Your task to perform on an android device: turn on translation in the chrome app Image 0: 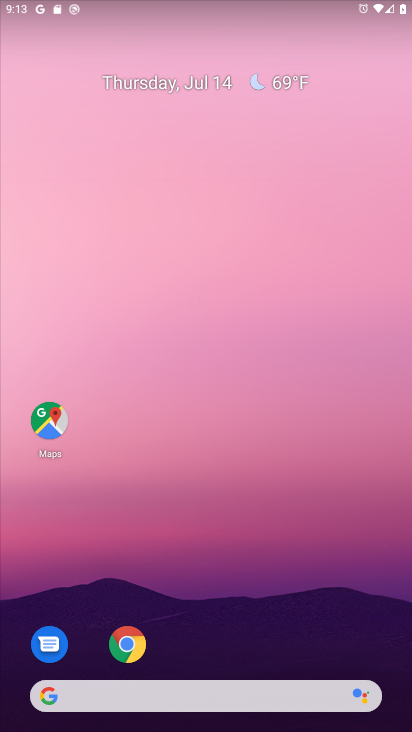
Step 0: click (119, 643)
Your task to perform on an android device: turn on translation in the chrome app Image 1: 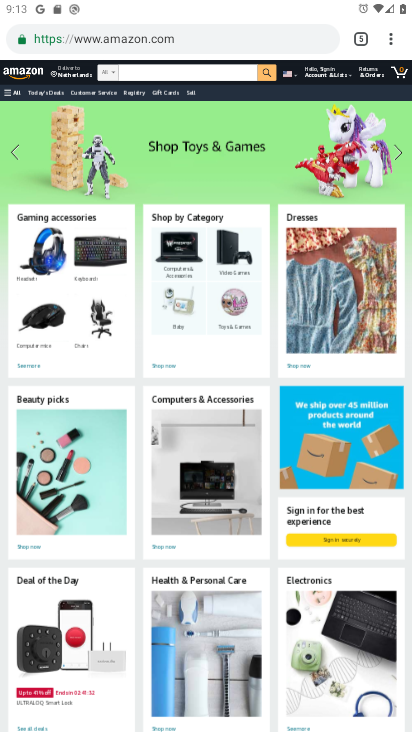
Step 1: click (398, 44)
Your task to perform on an android device: turn on translation in the chrome app Image 2: 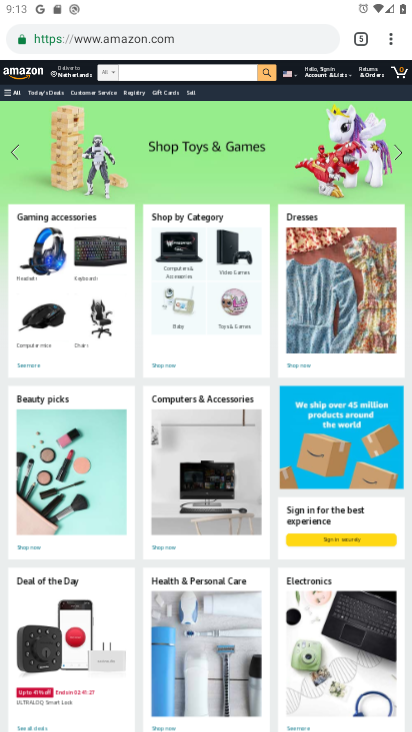
Step 2: click (395, 43)
Your task to perform on an android device: turn on translation in the chrome app Image 3: 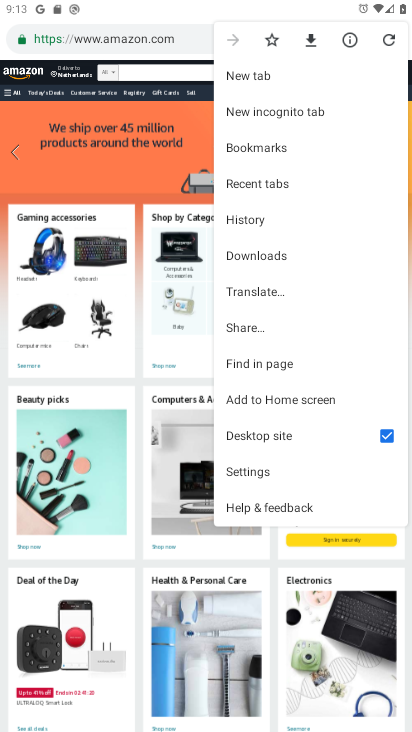
Step 3: click (298, 478)
Your task to perform on an android device: turn on translation in the chrome app Image 4: 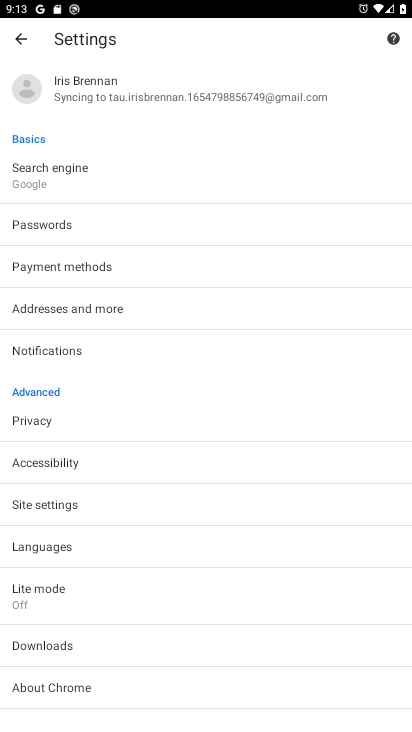
Step 4: click (85, 544)
Your task to perform on an android device: turn on translation in the chrome app Image 5: 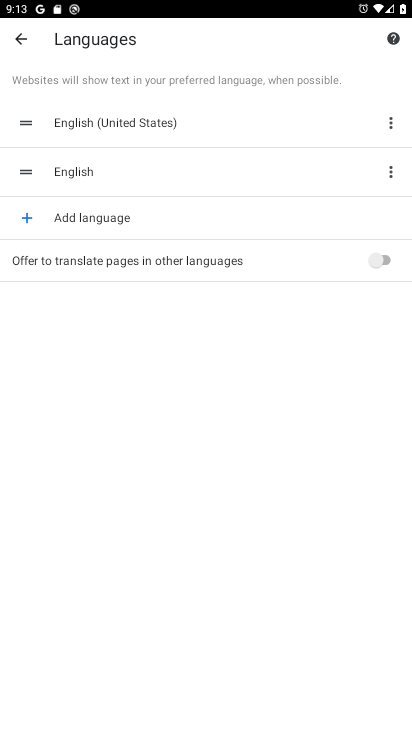
Step 5: click (386, 261)
Your task to perform on an android device: turn on translation in the chrome app Image 6: 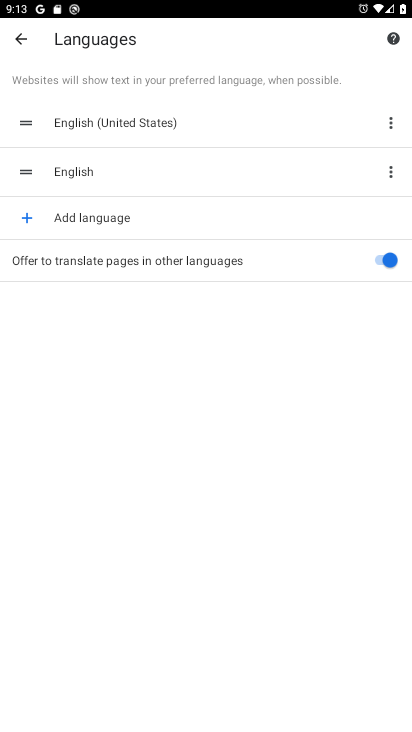
Step 6: task complete